Your task to perform on an android device: Open the calendar and show me this week's events? Image 0: 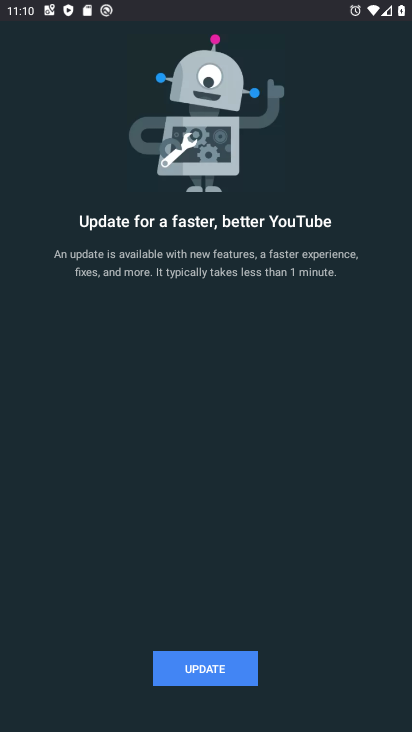
Step 0: press home button
Your task to perform on an android device: Open the calendar and show me this week's events? Image 1: 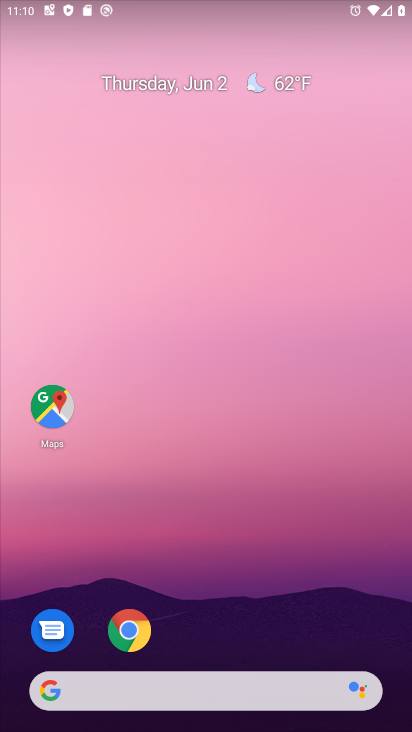
Step 1: drag from (103, 694) to (264, 122)
Your task to perform on an android device: Open the calendar and show me this week's events? Image 2: 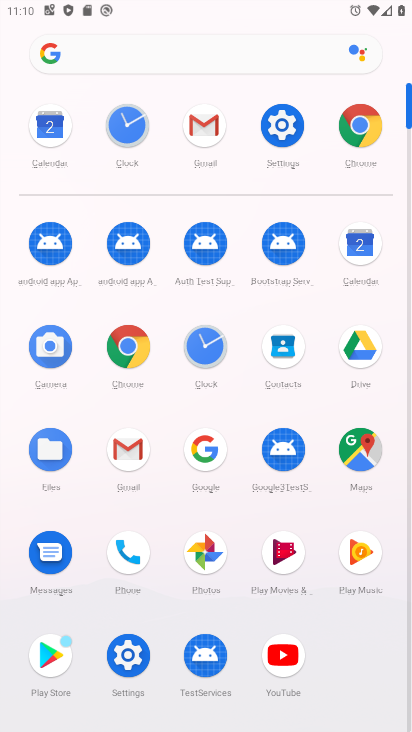
Step 2: click (360, 250)
Your task to perform on an android device: Open the calendar and show me this week's events? Image 3: 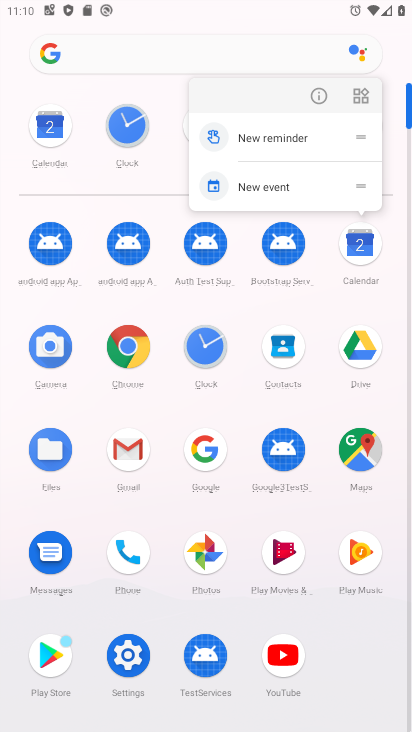
Step 3: click (360, 250)
Your task to perform on an android device: Open the calendar and show me this week's events? Image 4: 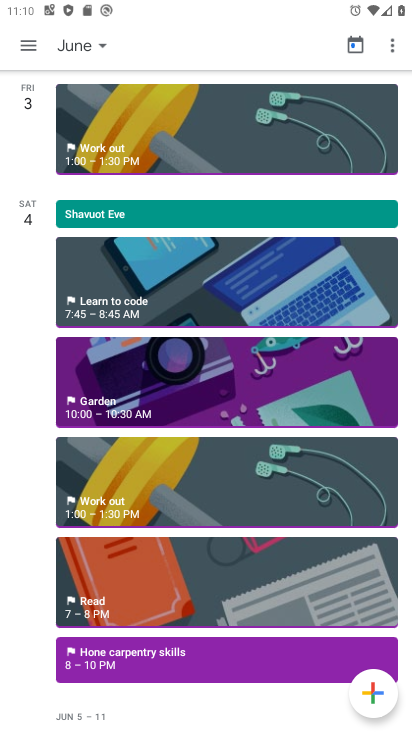
Step 4: click (69, 44)
Your task to perform on an android device: Open the calendar and show me this week's events? Image 5: 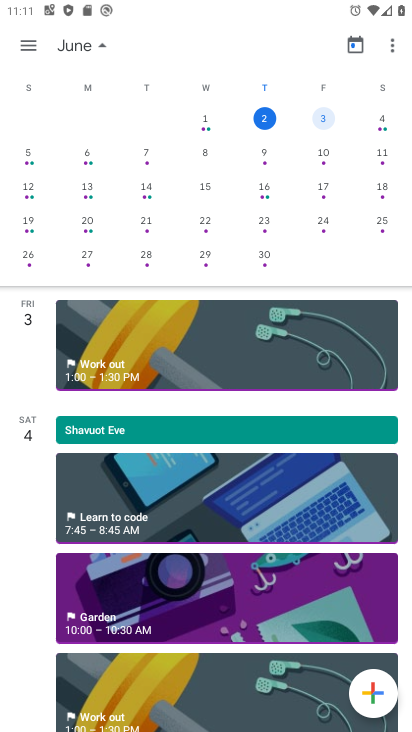
Step 5: click (269, 110)
Your task to perform on an android device: Open the calendar and show me this week's events? Image 6: 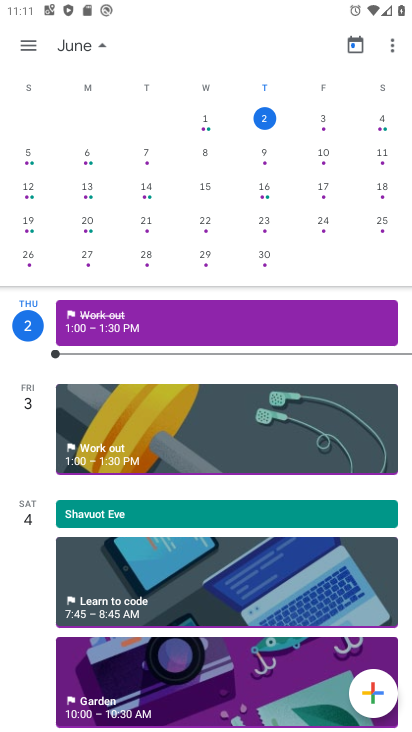
Step 6: click (31, 44)
Your task to perform on an android device: Open the calendar and show me this week's events? Image 7: 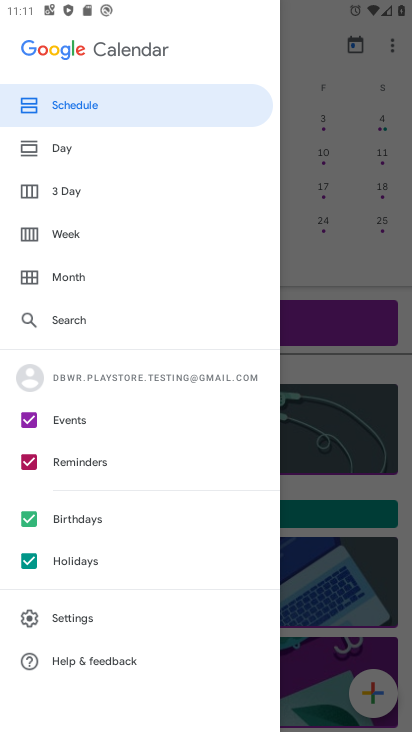
Step 7: click (83, 238)
Your task to perform on an android device: Open the calendar and show me this week's events? Image 8: 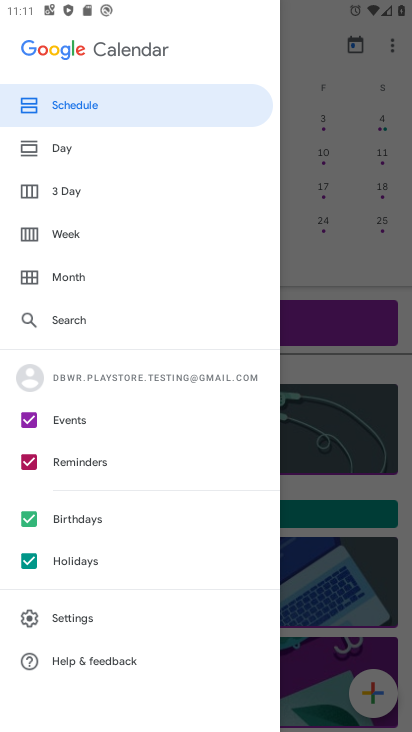
Step 8: click (61, 238)
Your task to perform on an android device: Open the calendar and show me this week's events? Image 9: 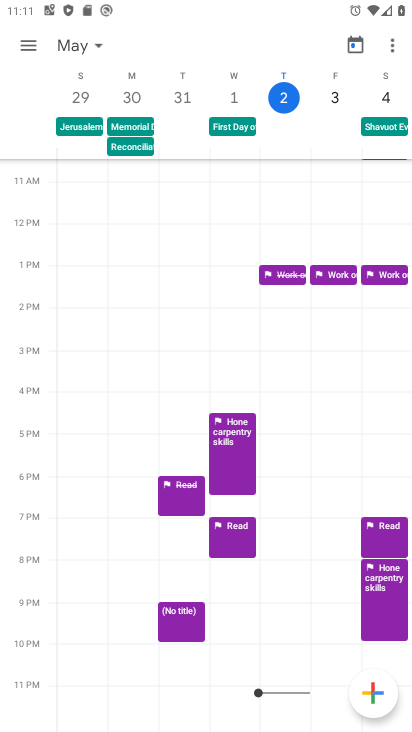
Step 9: click (32, 40)
Your task to perform on an android device: Open the calendar and show me this week's events? Image 10: 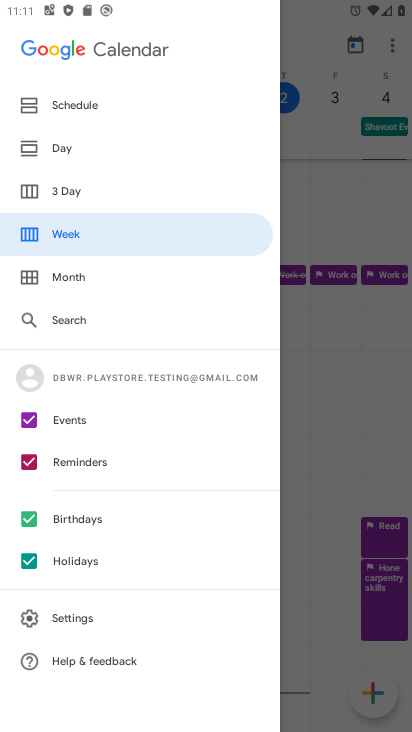
Step 10: click (79, 105)
Your task to perform on an android device: Open the calendar and show me this week's events? Image 11: 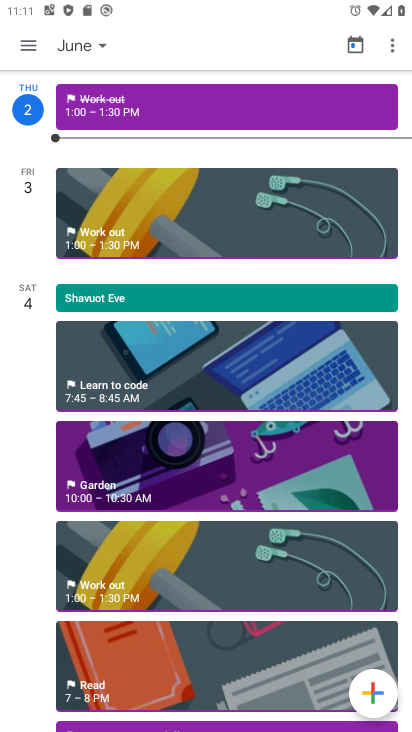
Step 11: click (74, 101)
Your task to perform on an android device: Open the calendar and show me this week's events? Image 12: 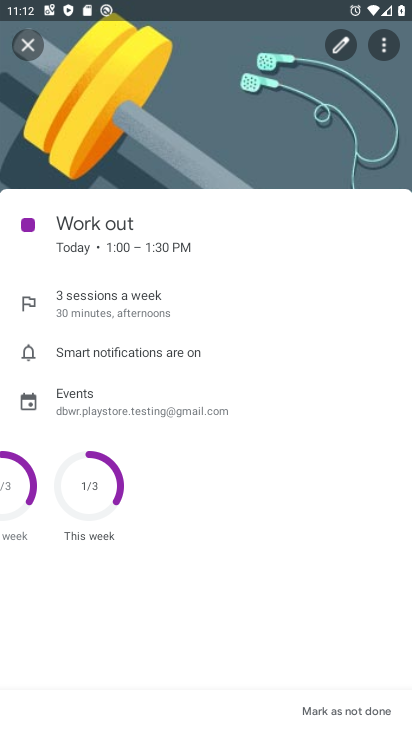
Step 12: task complete